Your task to perform on an android device: Open Chrome and go to the settings page Image 0: 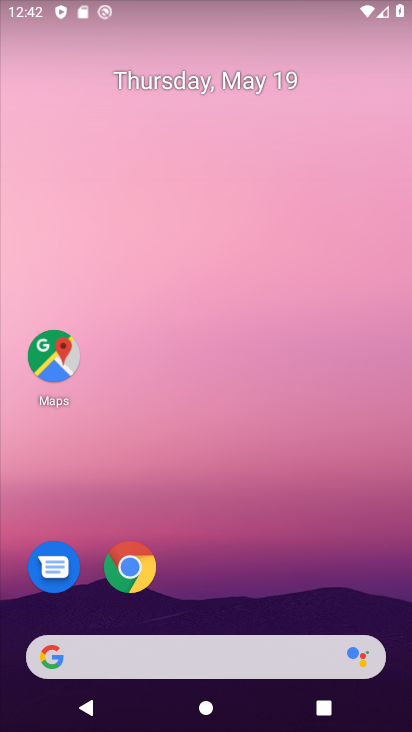
Step 0: click (136, 553)
Your task to perform on an android device: Open Chrome and go to the settings page Image 1: 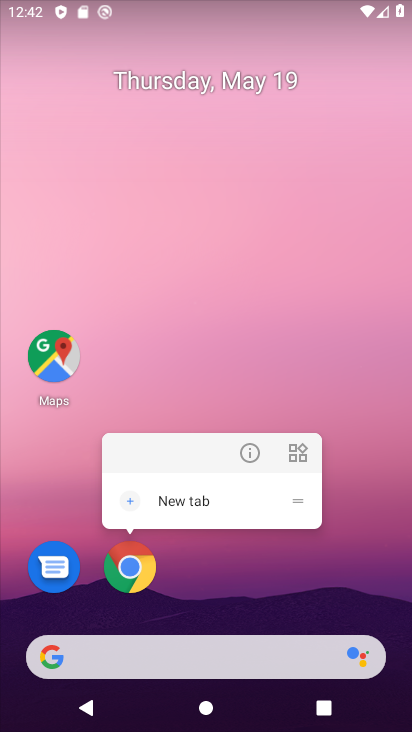
Step 1: click (134, 564)
Your task to perform on an android device: Open Chrome and go to the settings page Image 2: 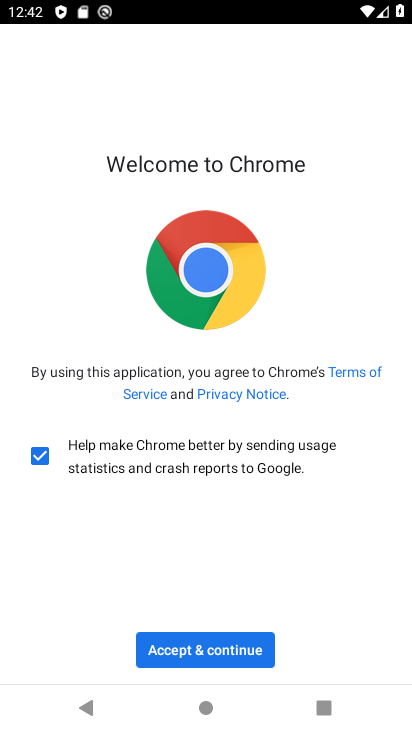
Step 2: click (208, 648)
Your task to perform on an android device: Open Chrome and go to the settings page Image 3: 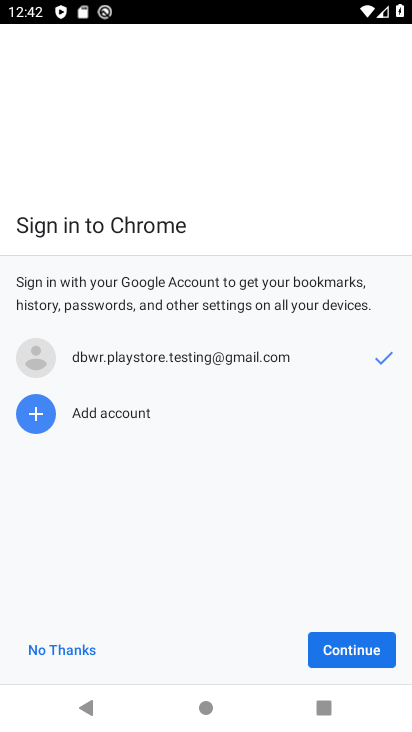
Step 3: click (68, 645)
Your task to perform on an android device: Open Chrome and go to the settings page Image 4: 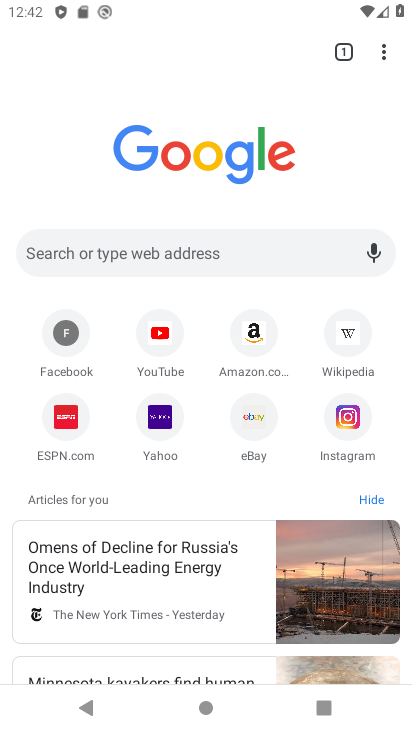
Step 4: click (380, 54)
Your task to perform on an android device: Open Chrome and go to the settings page Image 5: 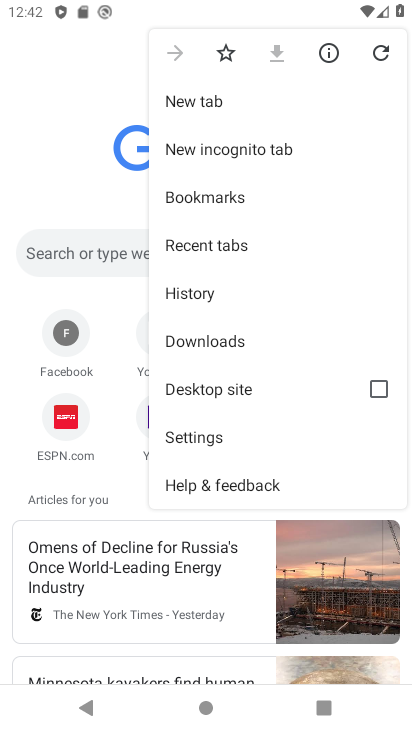
Step 5: click (197, 437)
Your task to perform on an android device: Open Chrome and go to the settings page Image 6: 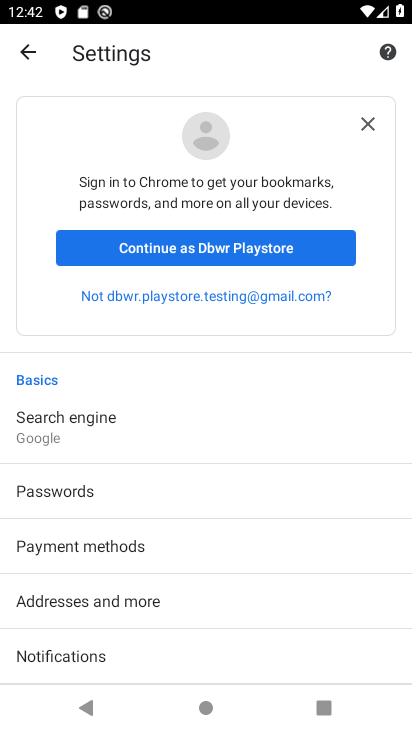
Step 6: click (365, 135)
Your task to perform on an android device: Open Chrome and go to the settings page Image 7: 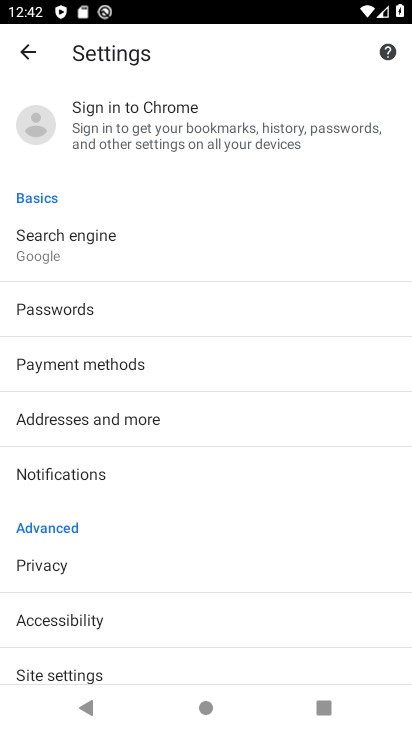
Step 7: task complete